Your task to perform on an android device: install app "Google Play services" Image 0: 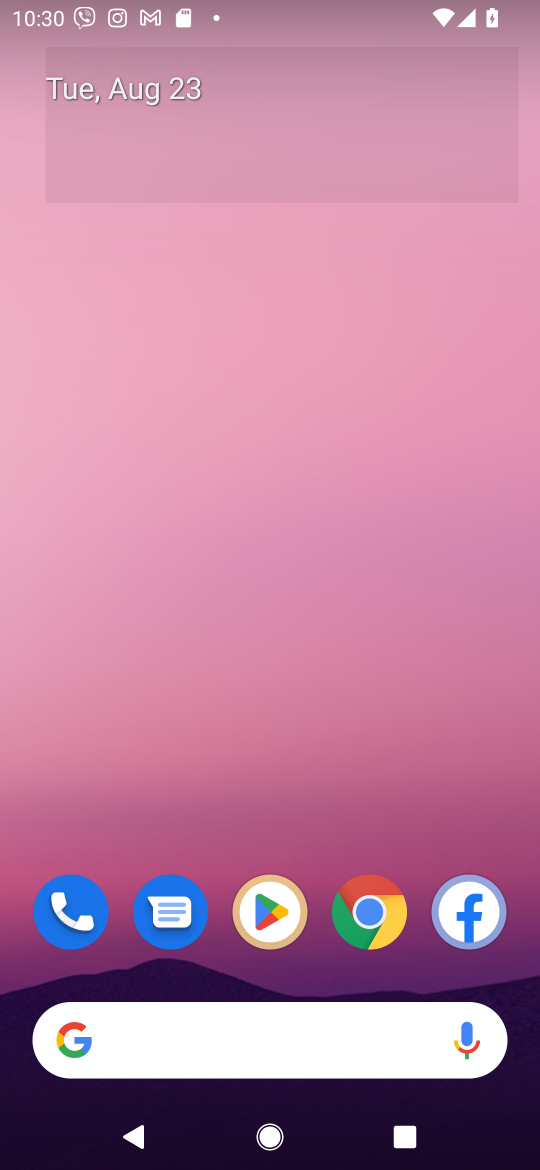
Step 0: click (265, 918)
Your task to perform on an android device: install app "Google Play services" Image 1: 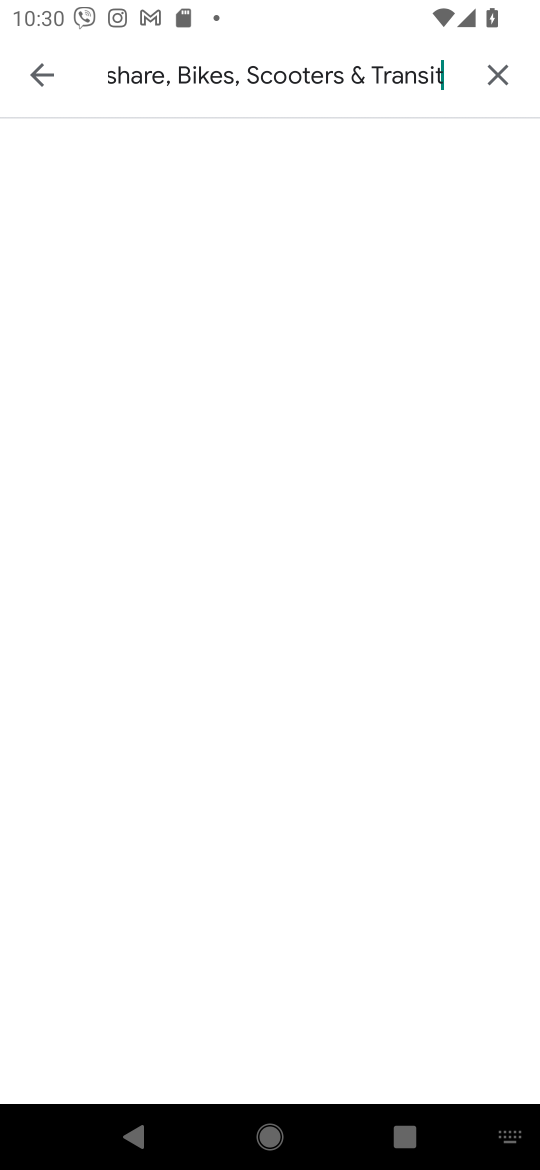
Step 1: click (500, 65)
Your task to perform on an android device: install app "Google Play services" Image 2: 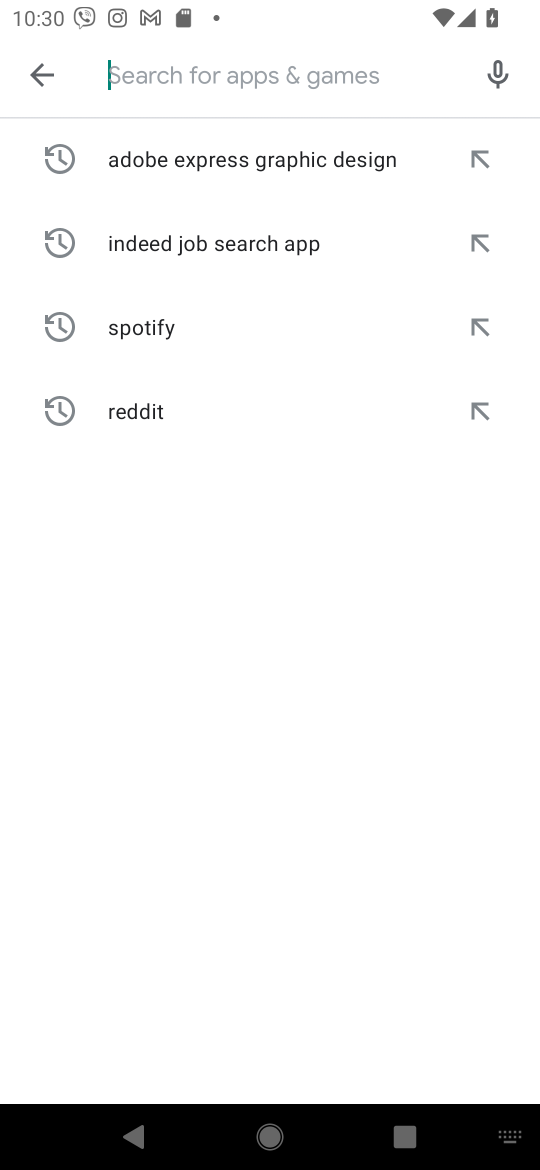
Step 2: type "Google Play services"
Your task to perform on an android device: install app "Google Play services" Image 3: 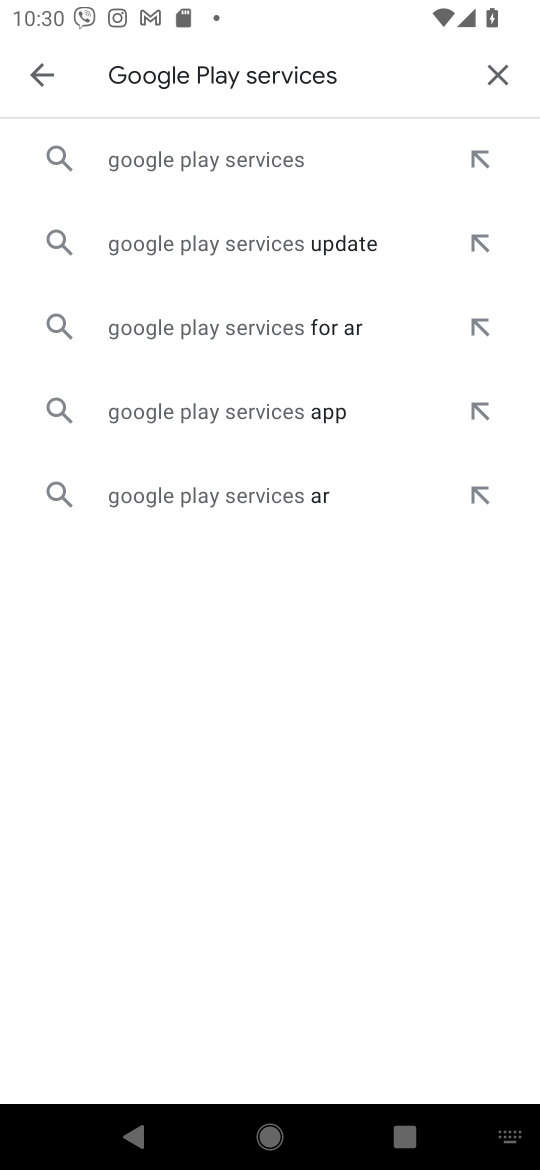
Step 3: click (236, 162)
Your task to perform on an android device: install app "Google Play services" Image 4: 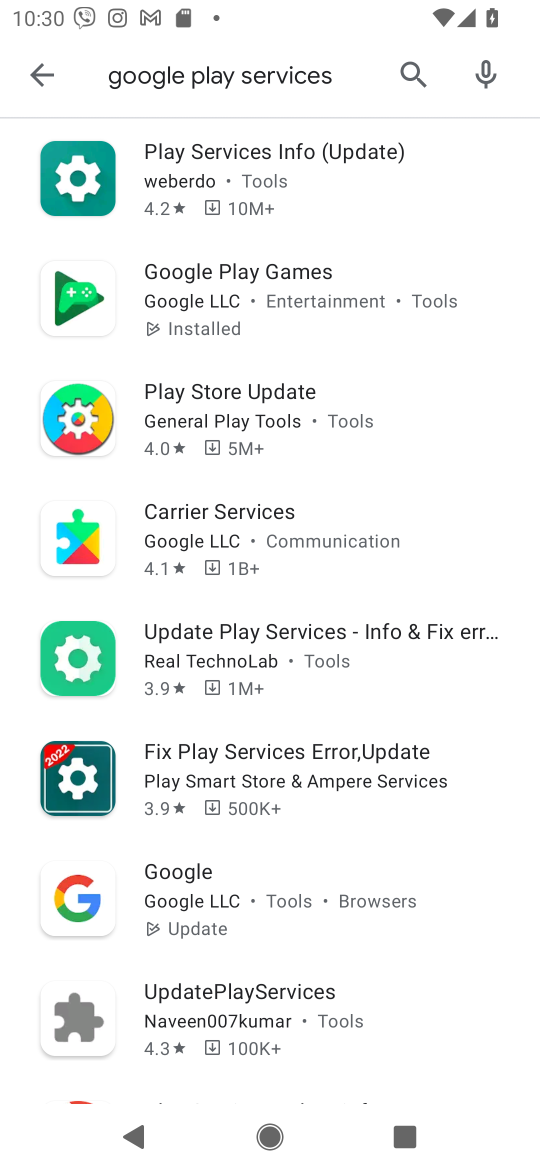
Step 4: task complete